Your task to perform on an android device: Open Android settings Image 0: 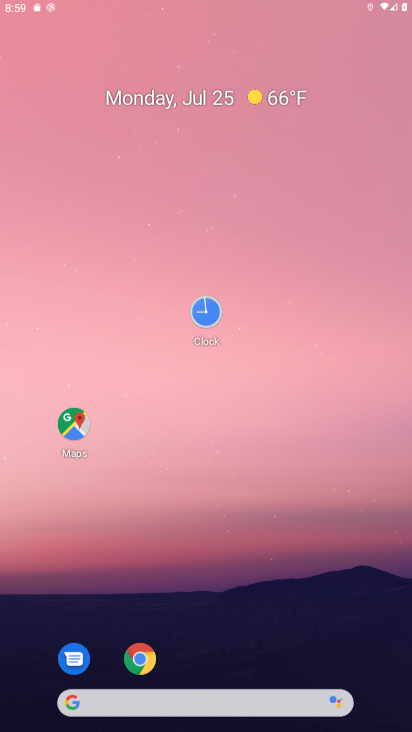
Step 0: press back button
Your task to perform on an android device: Open Android settings Image 1: 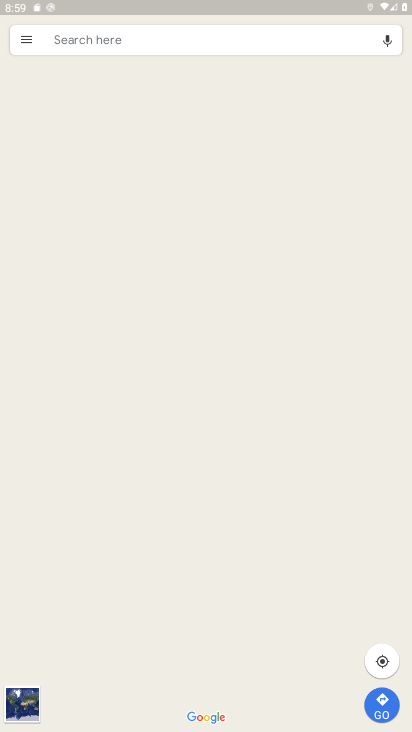
Step 1: drag from (275, 552) to (238, 118)
Your task to perform on an android device: Open Android settings Image 2: 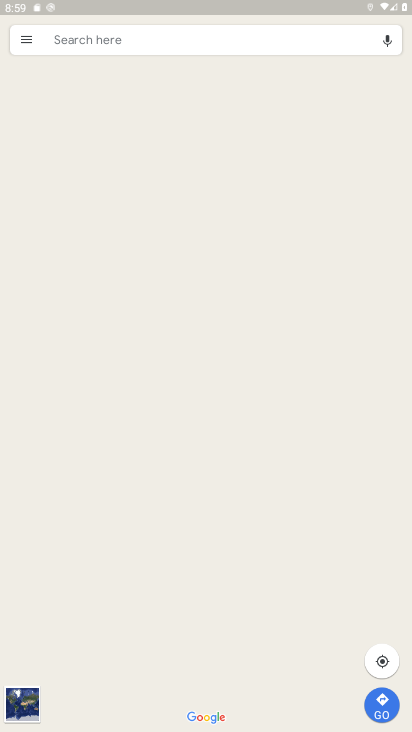
Step 2: drag from (269, 519) to (291, 61)
Your task to perform on an android device: Open Android settings Image 3: 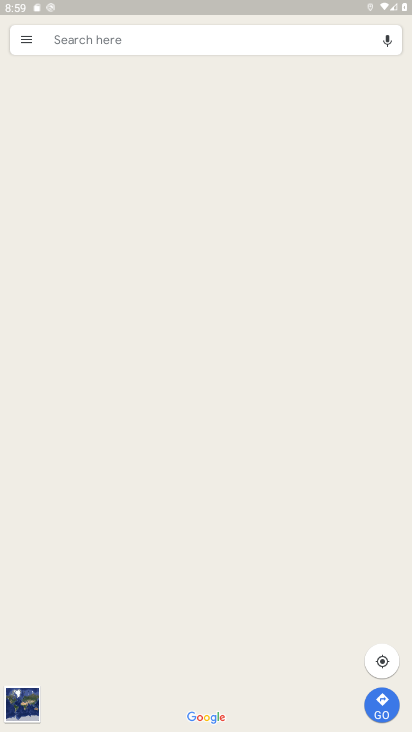
Step 3: press back button
Your task to perform on an android device: Open Android settings Image 4: 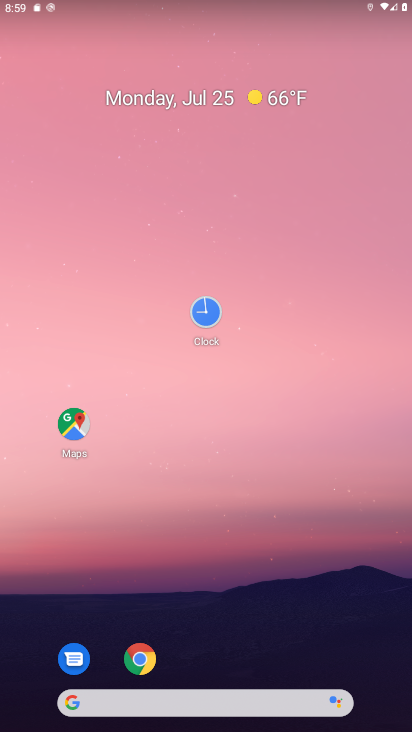
Step 4: drag from (148, 649) to (175, 180)
Your task to perform on an android device: Open Android settings Image 5: 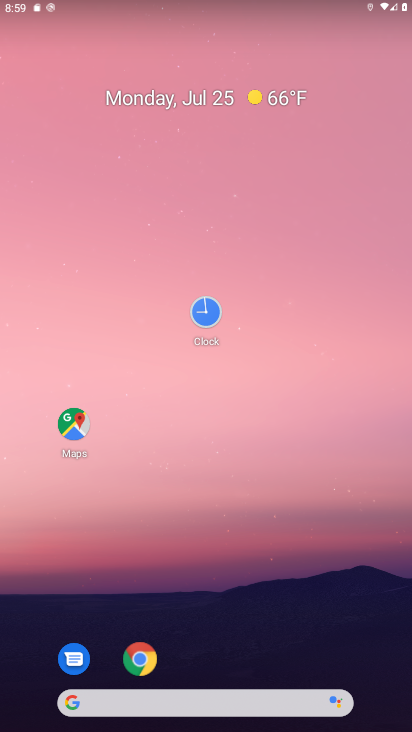
Step 5: drag from (222, 612) to (219, 155)
Your task to perform on an android device: Open Android settings Image 6: 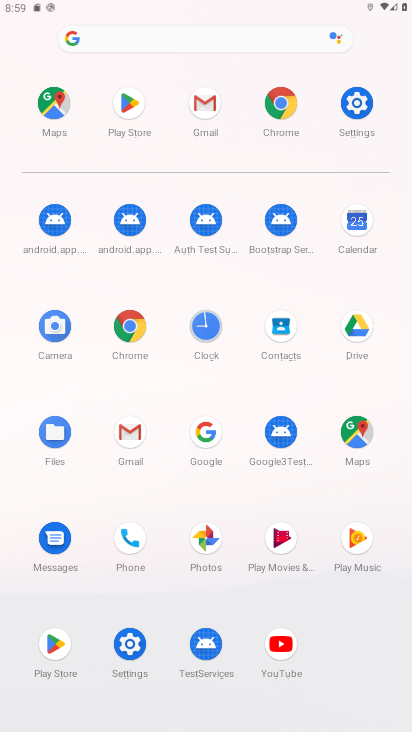
Step 6: drag from (234, 524) to (247, 304)
Your task to perform on an android device: Open Android settings Image 7: 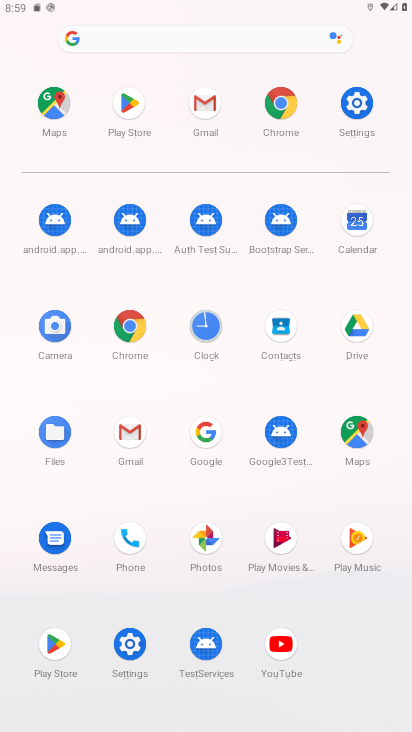
Step 7: click (343, 105)
Your task to perform on an android device: Open Android settings Image 8: 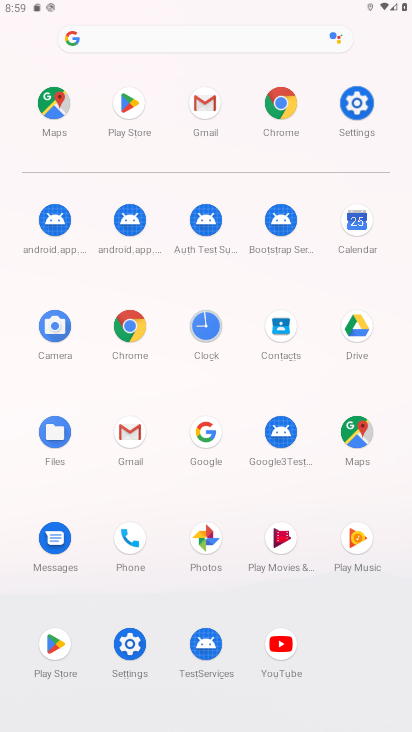
Step 8: click (350, 102)
Your task to perform on an android device: Open Android settings Image 9: 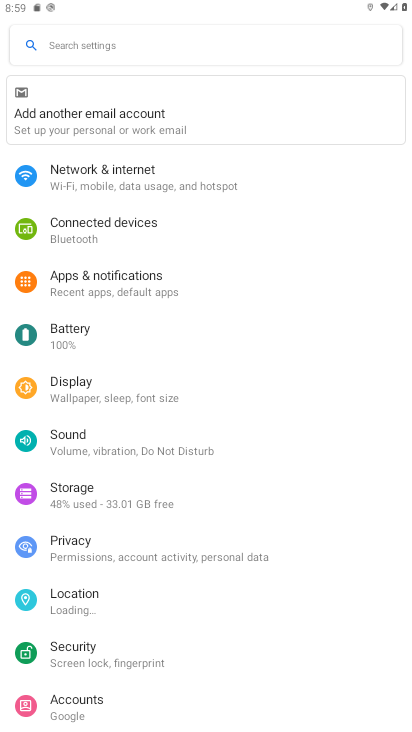
Step 9: drag from (173, 525) to (194, 206)
Your task to perform on an android device: Open Android settings Image 10: 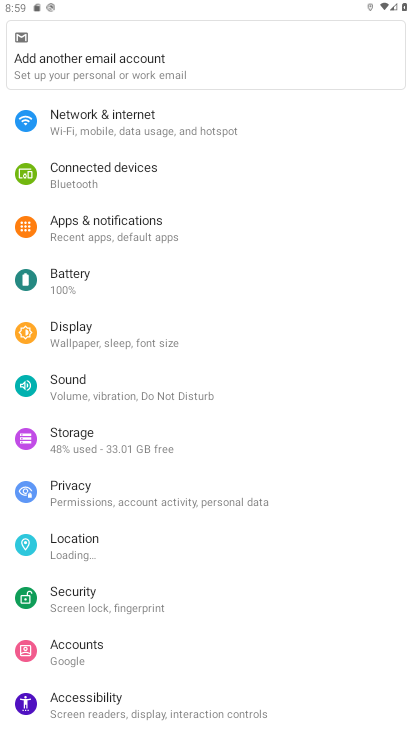
Step 10: drag from (194, 501) to (240, 173)
Your task to perform on an android device: Open Android settings Image 11: 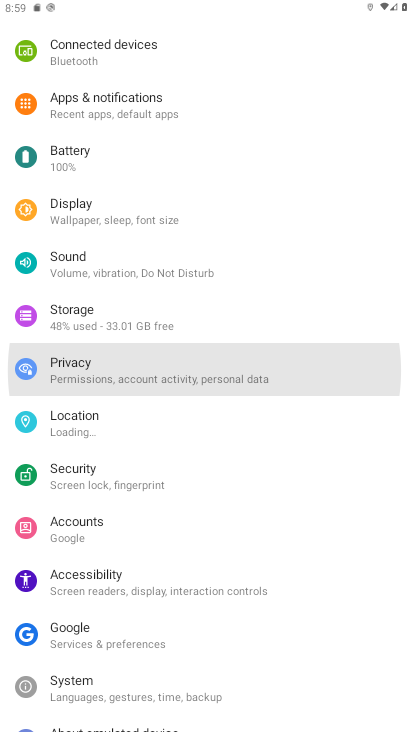
Step 11: drag from (247, 483) to (236, 201)
Your task to perform on an android device: Open Android settings Image 12: 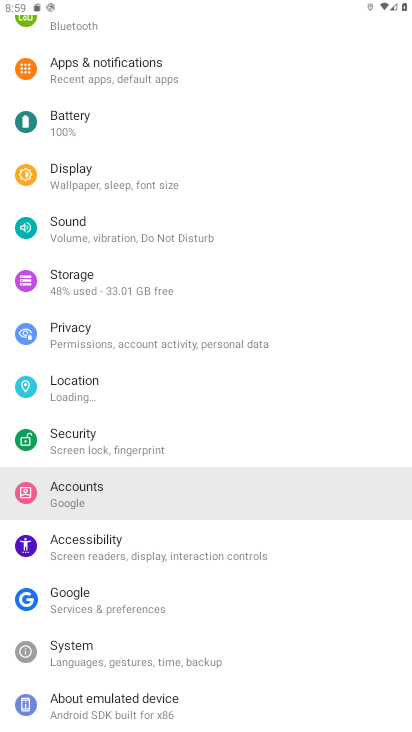
Step 12: drag from (224, 534) to (205, 71)
Your task to perform on an android device: Open Android settings Image 13: 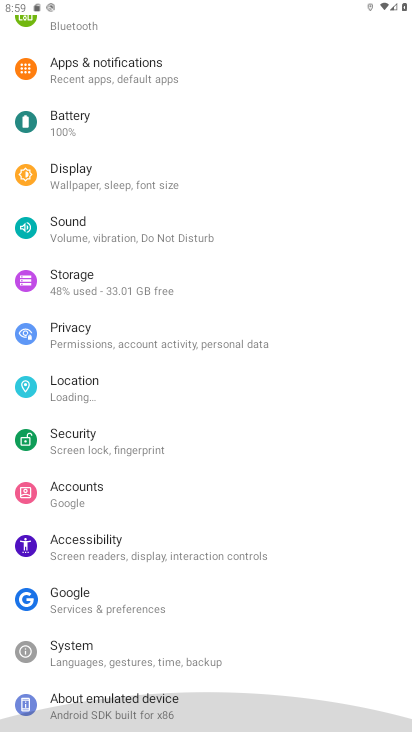
Step 13: drag from (171, 508) to (184, 267)
Your task to perform on an android device: Open Android settings Image 14: 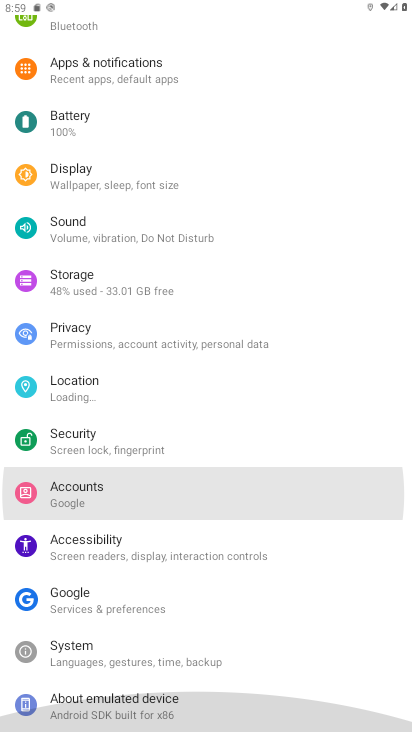
Step 14: drag from (192, 609) to (192, 224)
Your task to perform on an android device: Open Android settings Image 15: 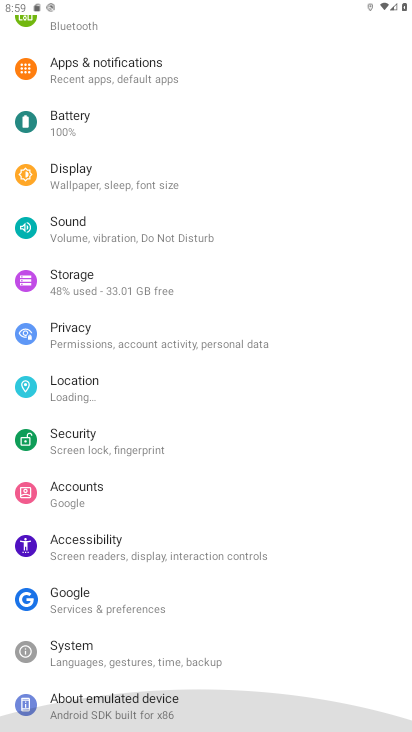
Step 15: drag from (175, 592) to (175, 224)
Your task to perform on an android device: Open Android settings Image 16: 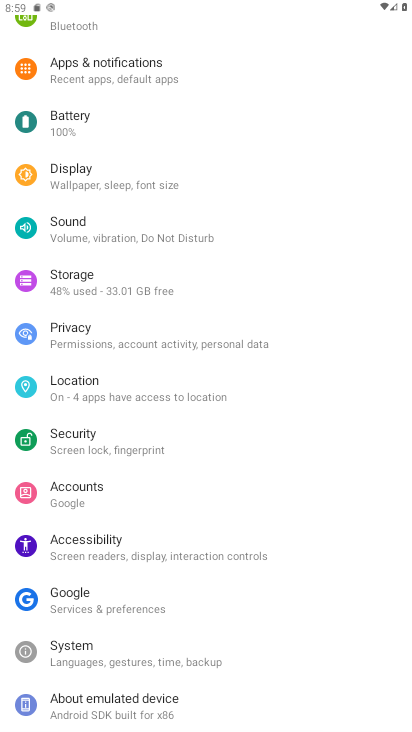
Step 16: click (102, 697)
Your task to perform on an android device: Open Android settings Image 17: 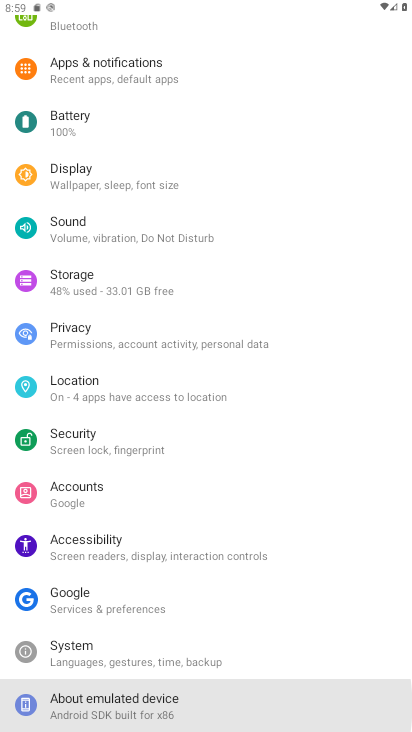
Step 17: click (104, 698)
Your task to perform on an android device: Open Android settings Image 18: 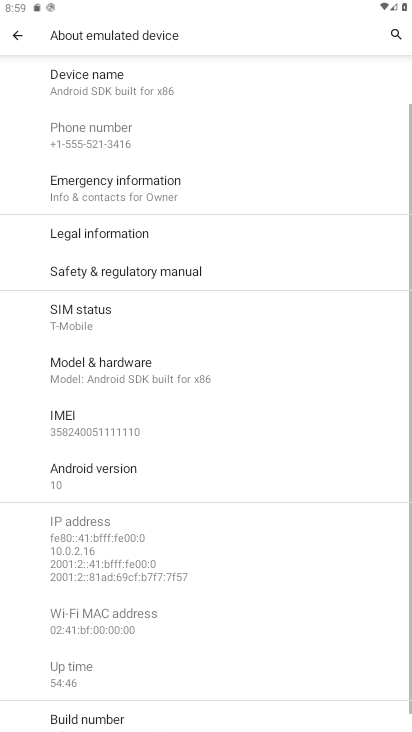
Step 18: click (107, 699)
Your task to perform on an android device: Open Android settings Image 19: 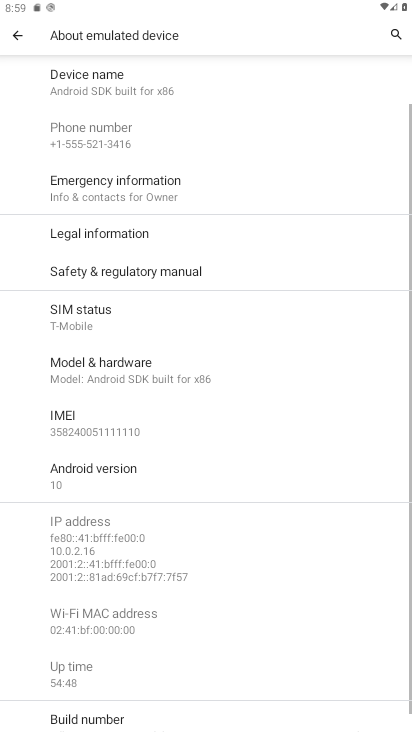
Step 19: task complete